Your task to perform on an android device: Search for a new perfume Image 0: 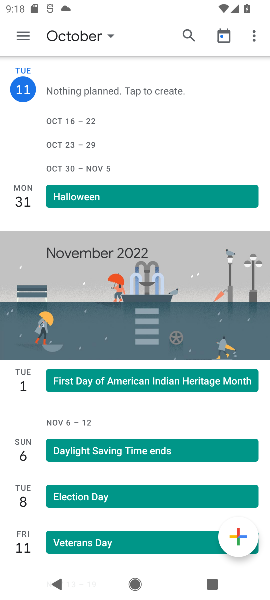
Step 0: press home button
Your task to perform on an android device: Search for a new perfume Image 1: 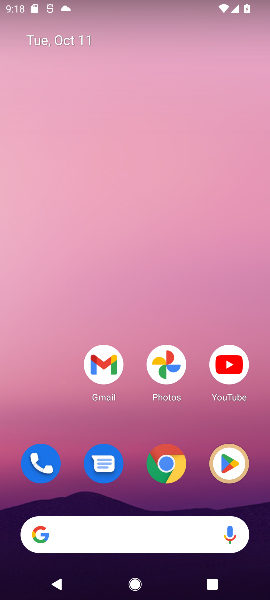
Step 1: drag from (162, 491) to (144, 216)
Your task to perform on an android device: Search for a new perfume Image 2: 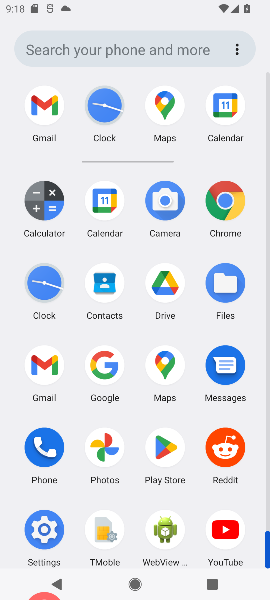
Step 2: click (96, 367)
Your task to perform on an android device: Search for a new perfume Image 3: 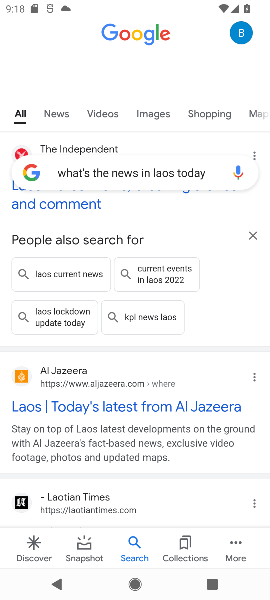
Step 3: click (137, 165)
Your task to perform on an android device: Search for a new perfume Image 4: 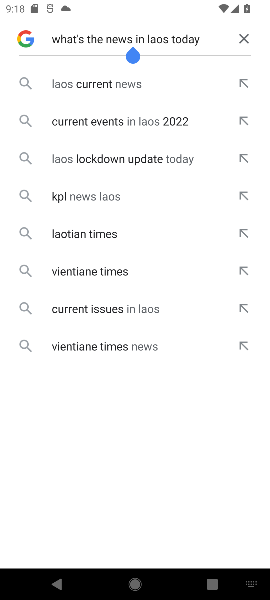
Step 4: click (236, 38)
Your task to perform on an android device: Search for a new perfume Image 5: 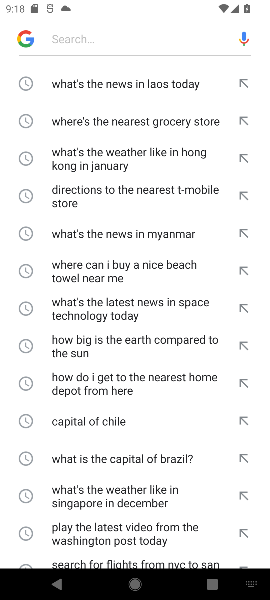
Step 5: click (151, 40)
Your task to perform on an android device: Search for a new perfume Image 6: 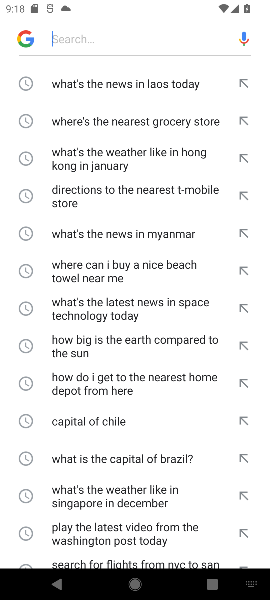
Step 6: type "Search for a new perfume "
Your task to perform on an android device: Search for a new perfume Image 7: 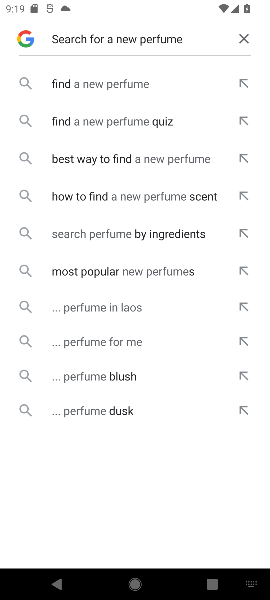
Step 7: click (76, 77)
Your task to perform on an android device: Search for a new perfume Image 8: 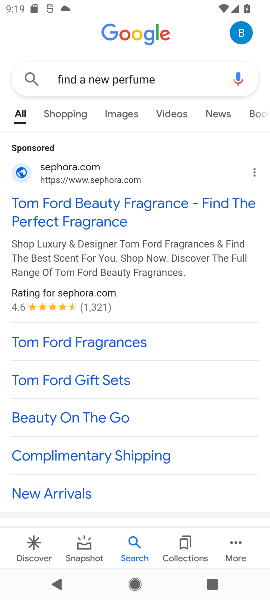
Step 8: click (121, 202)
Your task to perform on an android device: Search for a new perfume Image 9: 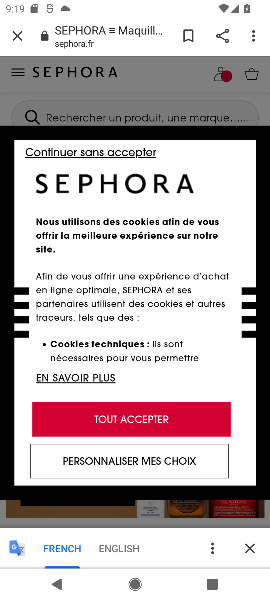
Step 9: click (232, 73)
Your task to perform on an android device: Search for a new perfume Image 10: 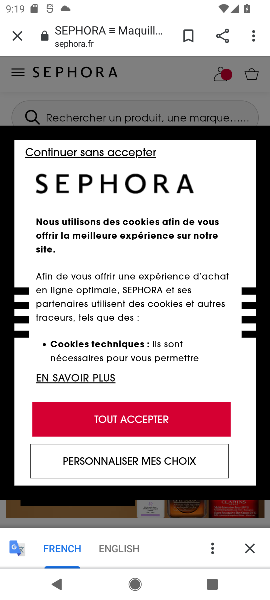
Step 10: click (165, 422)
Your task to perform on an android device: Search for a new perfume Image 11: 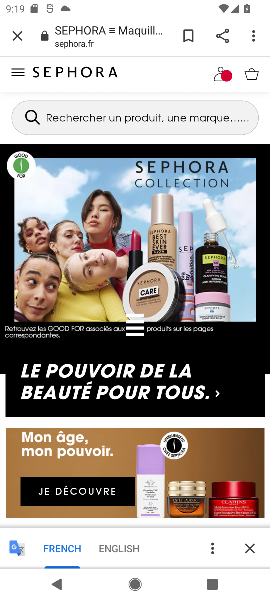
Step 11: drag from (189, 479) to (168, 207)
Your task to perform on an android device: Search for a new perfume Image 12: 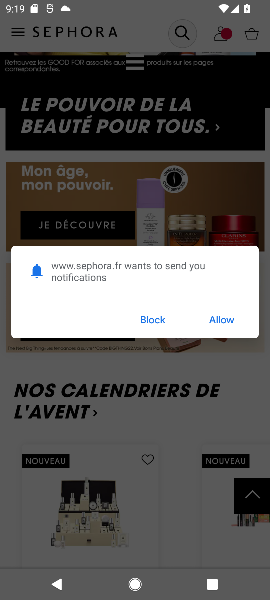
Step 12: drag from (219, 474) to (180, 261)
Your task to perform on an android device: Search for a new perfume Image 13: 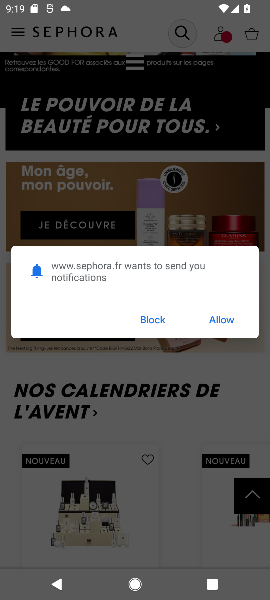
Step 13: click (221, 321)
Your task to perform on an android device: Search for a new perfume Image 14: 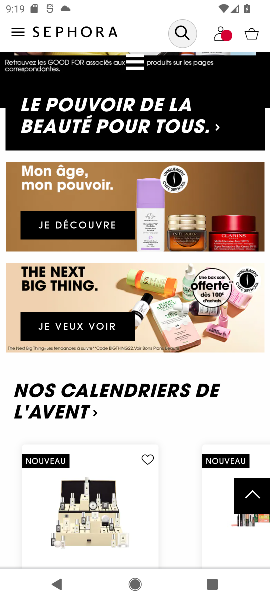
Step 14: task complete